Your task to perform on an android device: turn on wifi Image 0: 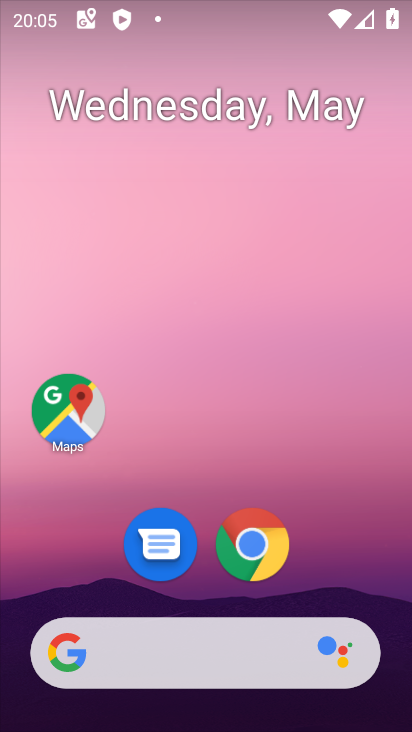
Step 0: drag from (224, 21) to (232, 659)
Your task to perform on an android device: turn on wifi Image 1: 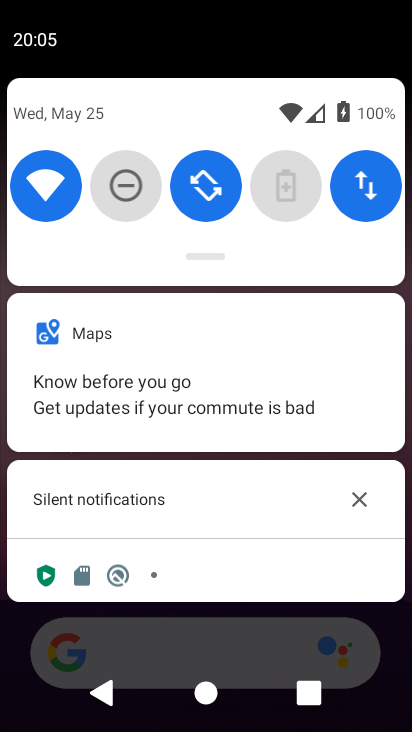
Step 1: task complete